Your task to perform on an android device: Play the last video I watched on Youtube Image 0: 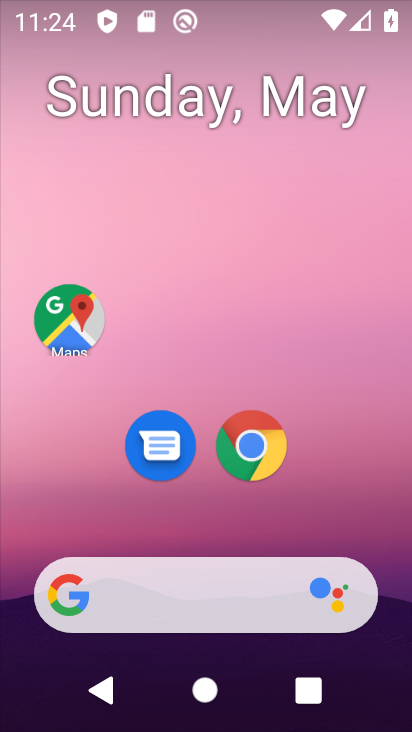
Step 0: click (233, 161)
Your task to perform on an android device: Play the last video I watched on Youtube Image 1: 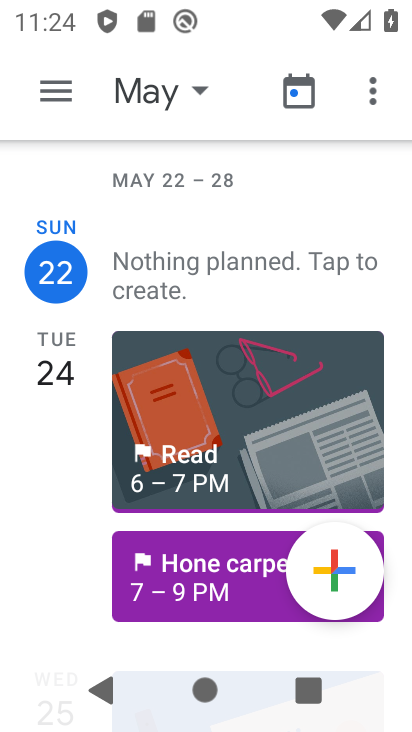
Step 1: press home button
Your task to perform on an android device: Play the last video I watched on Youtube Image 2: 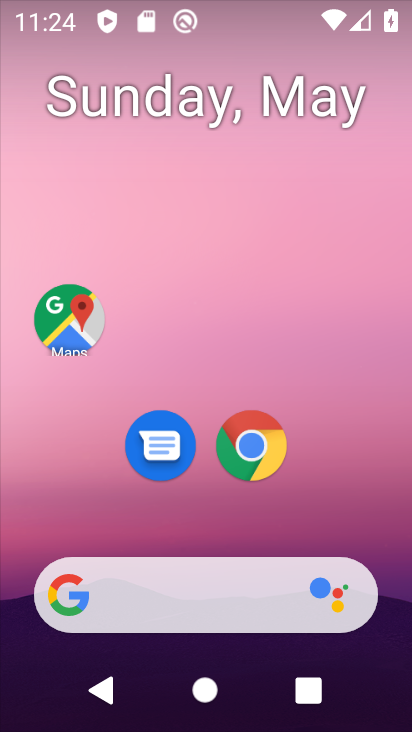
Step 2: drag from (203, 171) to (199, 65)
Your task to perform on an android device: Play the last video I watched on Youtube Image 3: 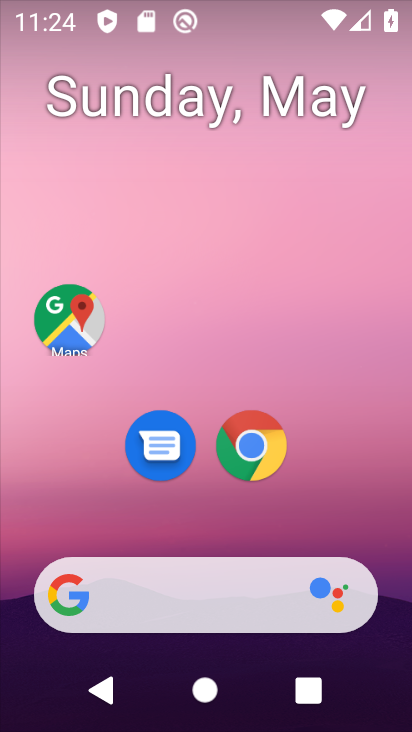
Step 3: drag from (192, 532) to (205, 21)
Your task to perform on an android device: Play the last video I watched on Youtube Image 4: 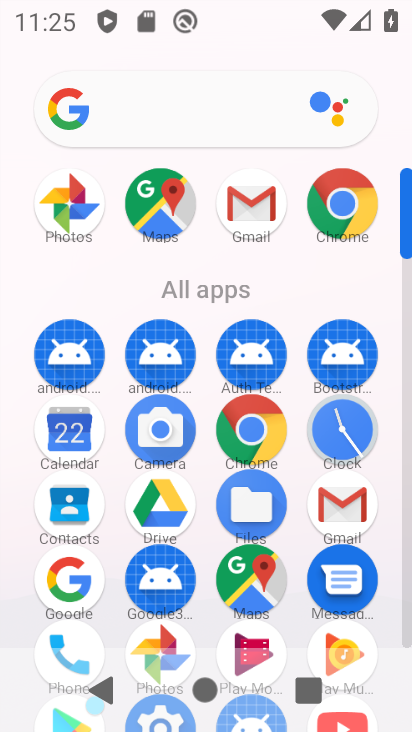
Step 4: drag from (305, 609) to (291, 145)
Your task to perform on an android device: Play the last video I watched on Youtube Image 5: 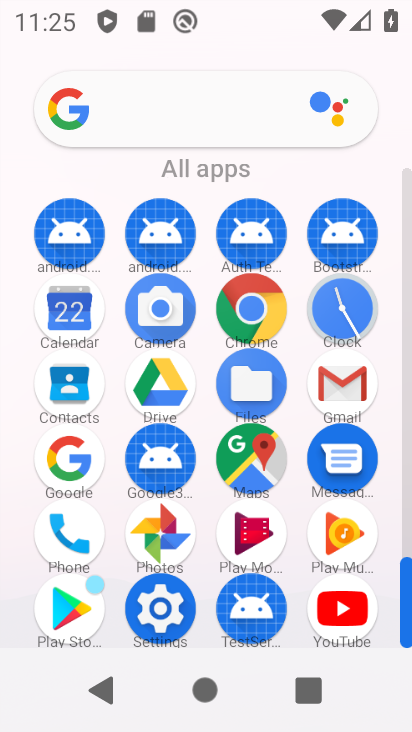
Step 5: click (342, 605)
Your task to perform on an android device: Play the last video I watched on Youtube Image 6: 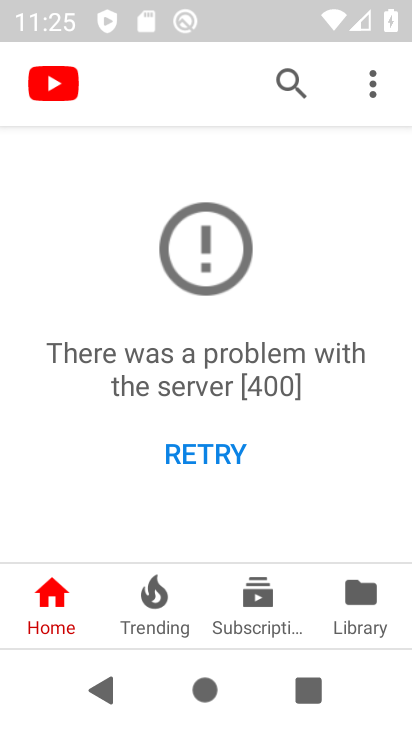
Step 6: click (377, 593)
Your task to perform on an android device: Play the last video I watched on Youtube Image 7: 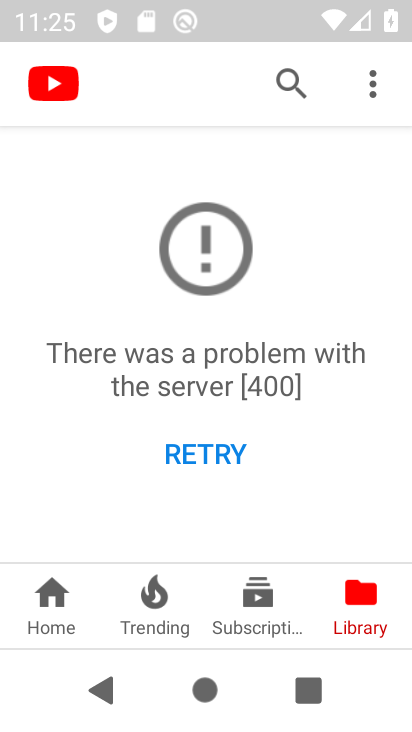
Step 7: task complete